Your task to perform on an android device: manage bookmarks in the chrome app Image 0: 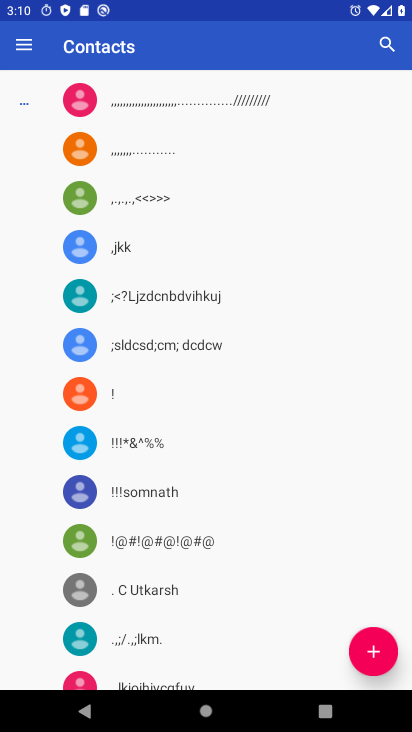
Step 0: press home button
Your task to perform on an android device: manage bookmarks in the chrome app Image 1: 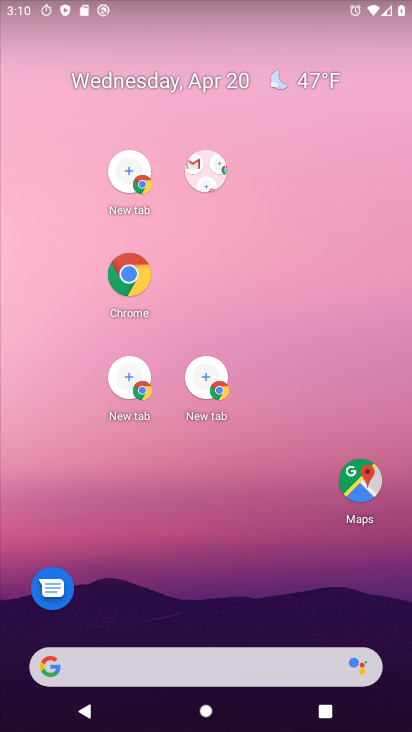
Step 1: drag from (274, 576) to (220, 347)
Your task to perform on an android device: manage bookmarks in the chrome app Image 2: 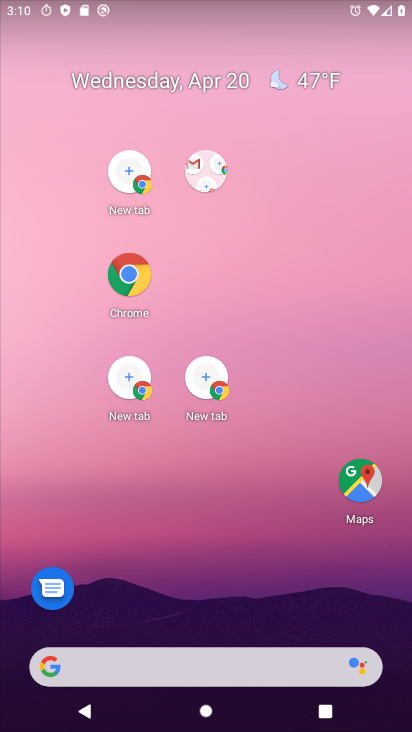
Step 2: click (350, 445)
Your task to perform on an android device: manage bookmarks in the chrome app Image 3: 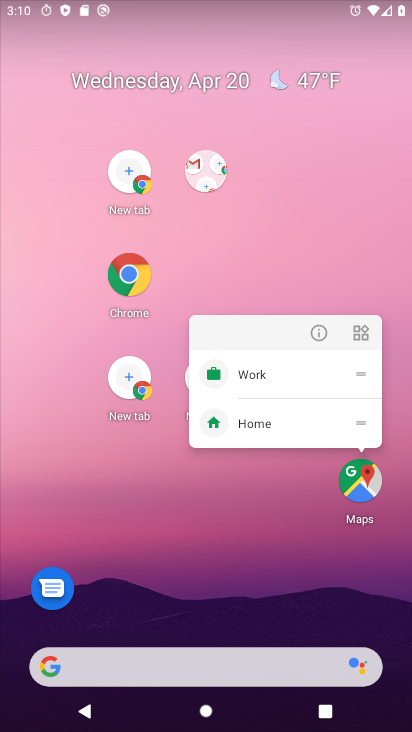
Step 3: click (131, 274)
Your task to perform on an android device: manage bookmarks in the chrome app Image 4: 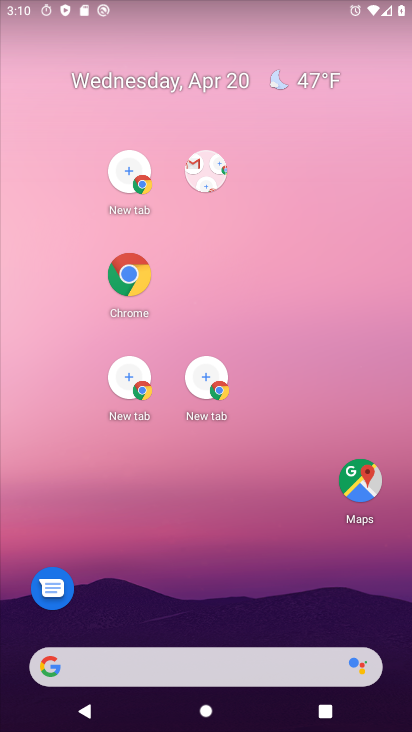
Step 4: click (131, 274)
Your task to perform on an android device: manage bookmarks in the chrome app Image 5: 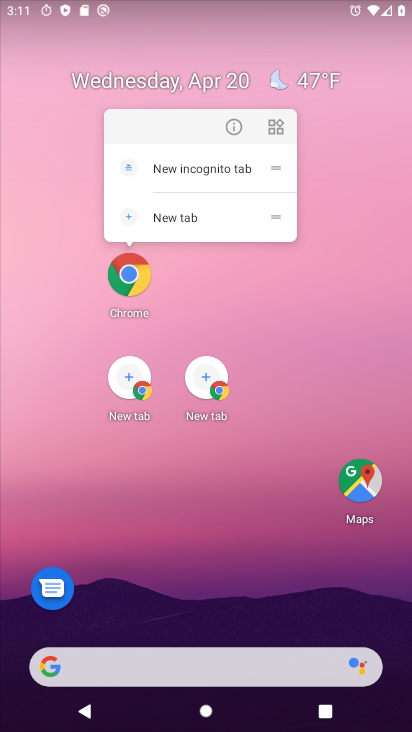
Step 5: click (152, 204)
Your task to perform on an android device: manage bookmarks in the chrome app Image 6: 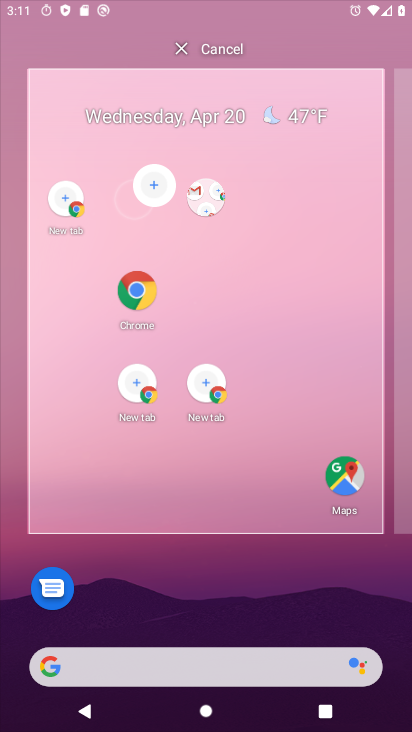
Step 6: click (159, 214)
Your task to perform on an android device: manage bookmarks in the chrome app Image 7: 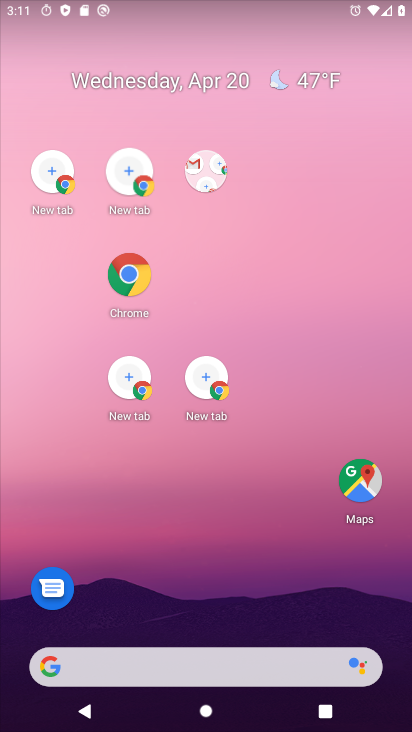
Step 7: click (142, 278)
Your task to perform on an android device: manage bookmarks in the chrome app Image 8: 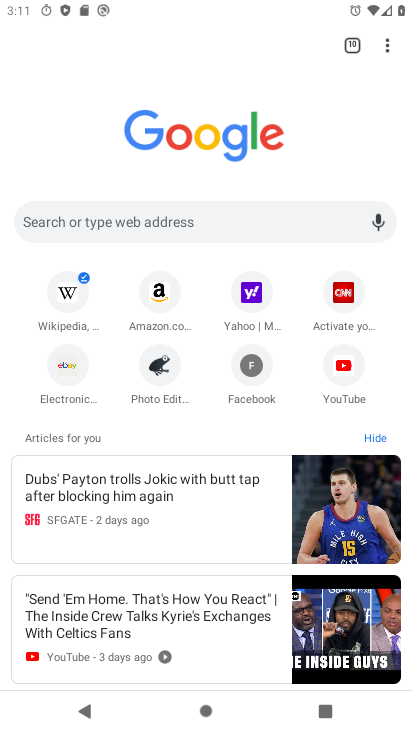
Step 8: click (139, 276)
Your task to perform on an android device: manage bookmarks in the chrome app Image 9: 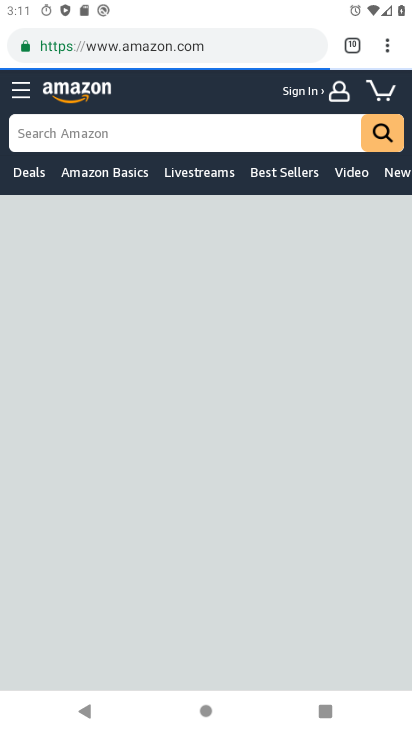
Step 9: drag from (389, 45) to (220, 227)
Your task to perform on an android device: manage bookmarks in the chrome app Image 10: 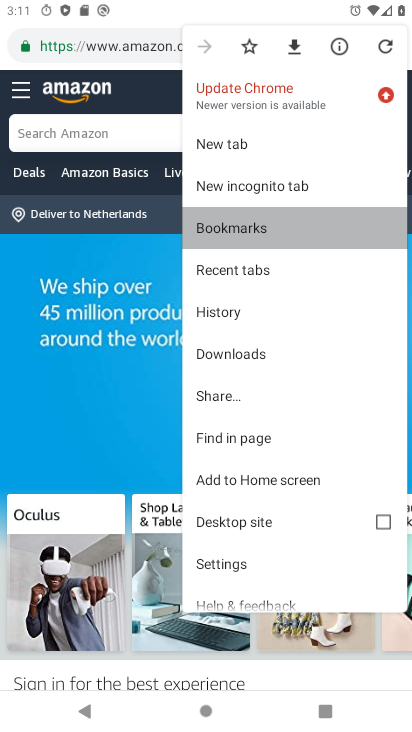
Step 10: click (220, 227)
Your task to perform on an android device: manage bookmarks in the chrome app Image 11: 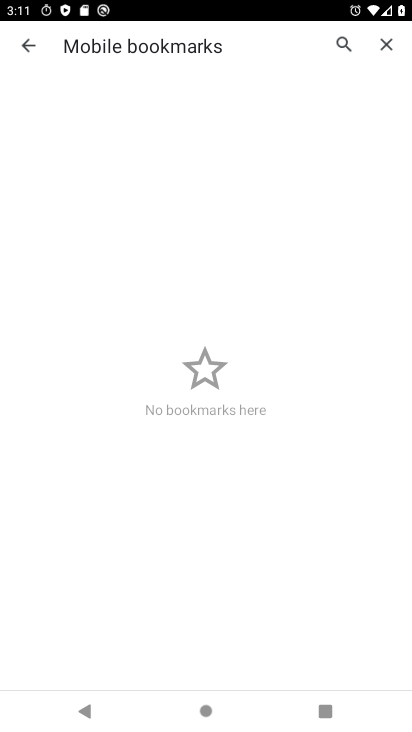
Step 11: task complete